Your task to perform on an android device: toggle airplane mode Image 0: 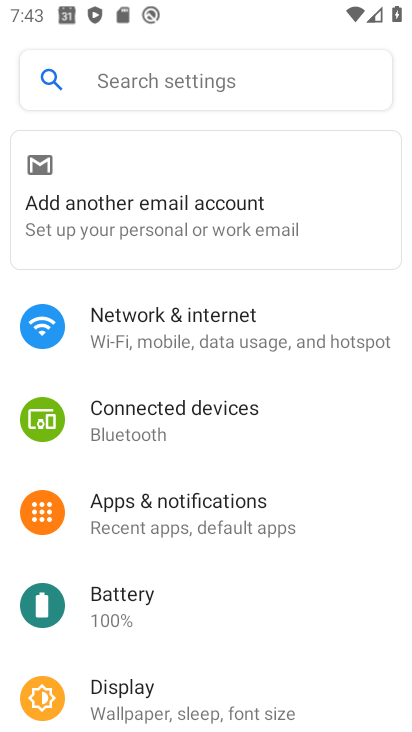
Step 0: click (219, 308)
Your task to perform on an android device: toggle airplane mode Image 1: 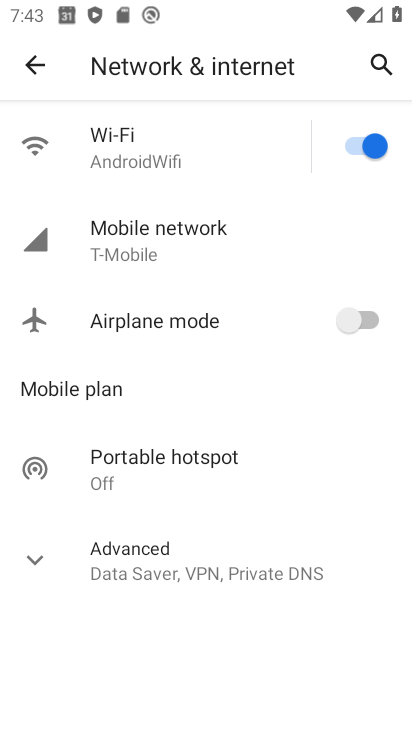
Step 1: click (345, 315)
Your task to perform on an android device: toggle airplane mode Image 2: 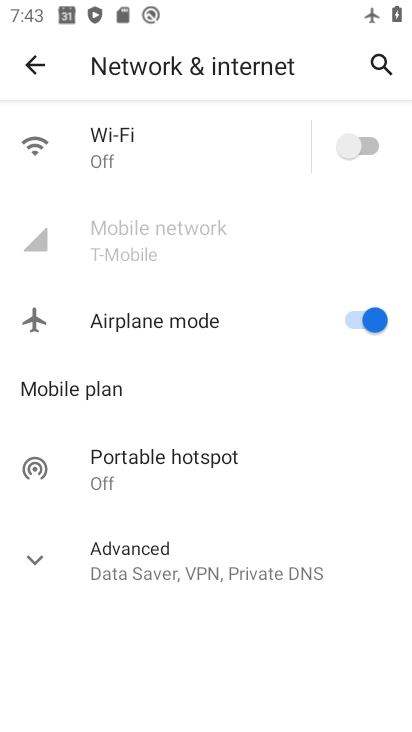
Step 2: click (51, 550)
Your task to perform on an android device: toggle airplane mode Image 3: 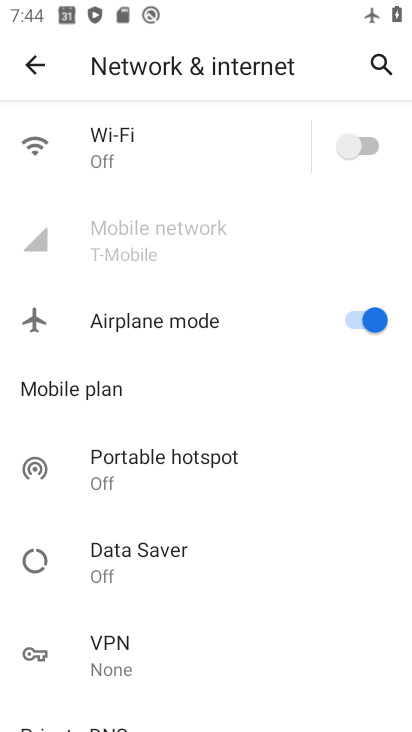
Step 3: task complete